Your task to perform on an android device: clear all cookies in the chrome app Image 0: 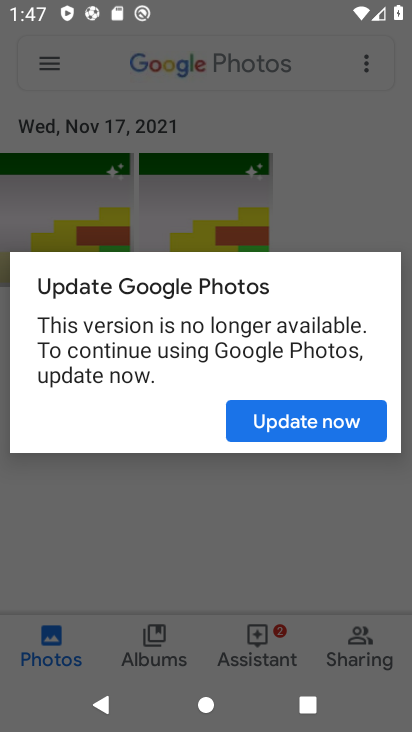
Step 0: press home button
Your task to perform on an android device: clear all cookies in the chrome app Image 1: 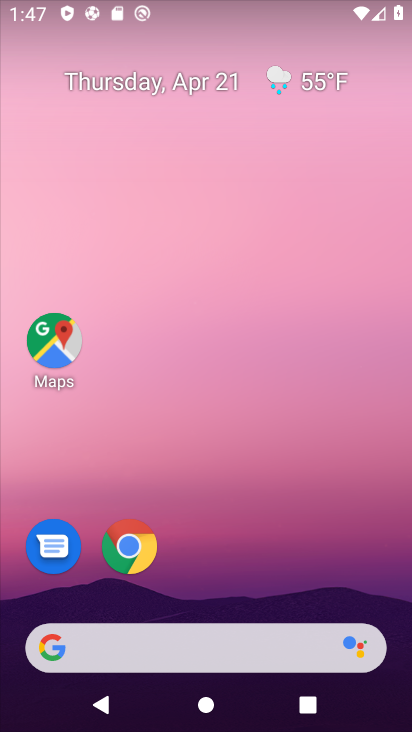
Step 1: click (133, 555)
Your task to perform on an android device: clear all cookies in the chrome app Image 2: 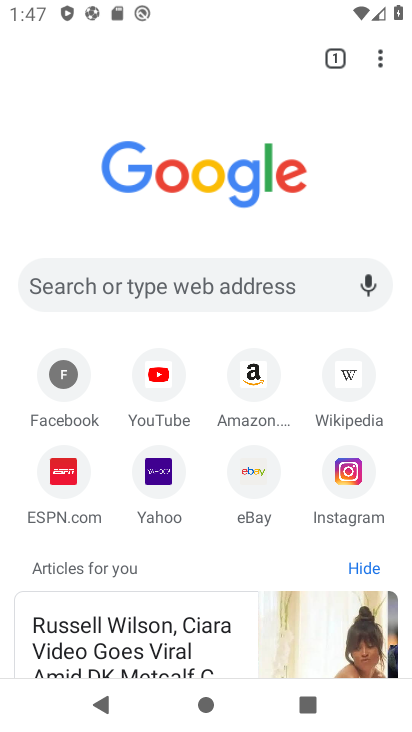
Step 2: click (386, 68)
Your task to perform on an android device: clear all cookies in the chrome app Image 3: 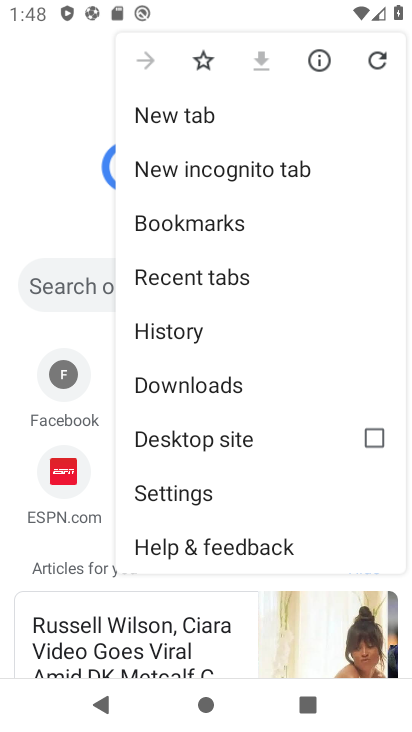
Step 3: click (174, 345)
Your task to perform on an android device: clear all cookies in the chrome app Image 4: 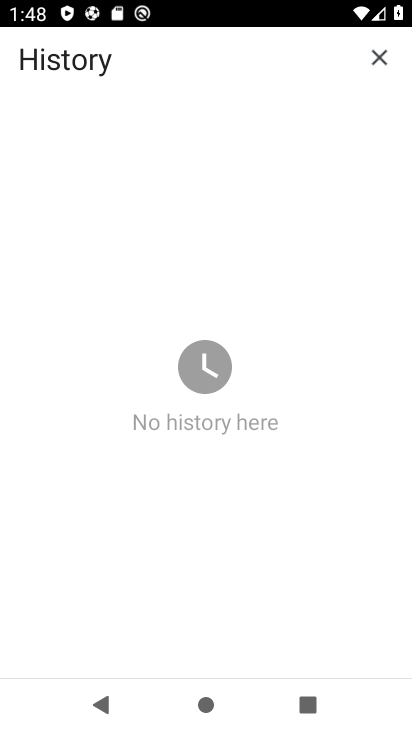
Step 4: task complete